Your task to perform on an android device: find which apps use the phone's location Image 0: 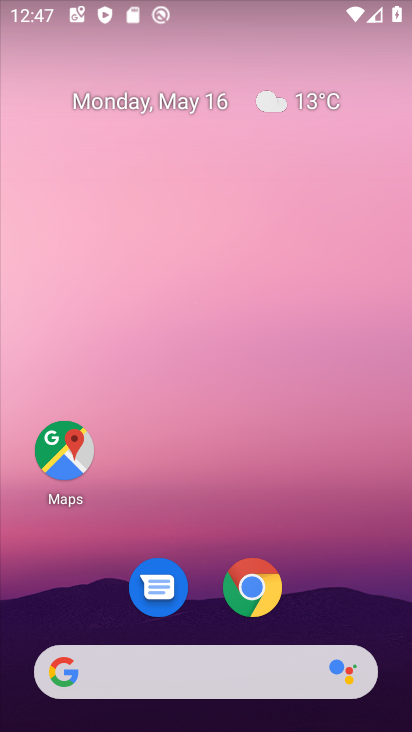
Step 0: drag from (225, 725) to (221, 239)
Your task to perform on an android device: find which apps use the phone's location Image 1: 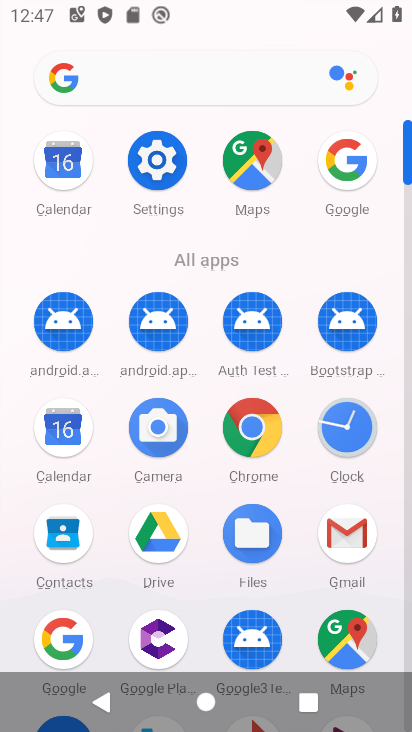
Step 1: click (157, 158)
Your task to perform on an android device: find which apps use the phone's location Image 2: 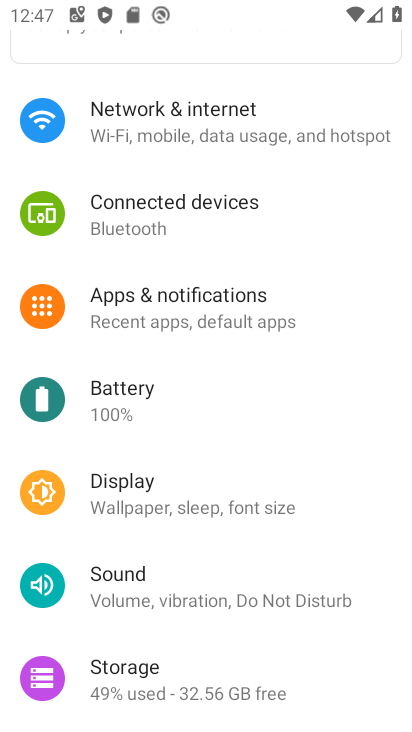
Step 2: drag from (164, 658) to (171, 277)
Your task to perform on an android device: find which apps use the phone's location Image 3: 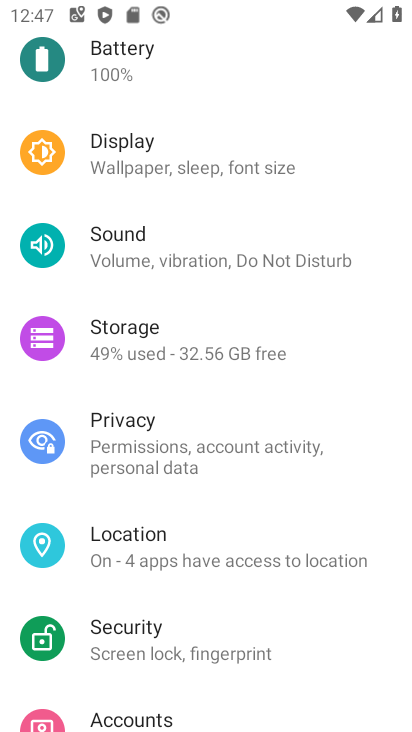
Step 3: click (150, 551)
Your task to perform on an android device: find which apps use the phone's location Image 4: 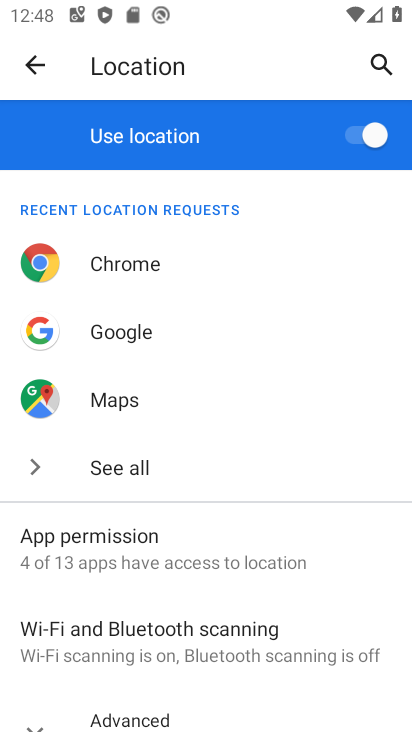
Step 4: drag from (197, 681) to (197, 406)
Your task to perform on an android device: find which apps use the phone's location Image 5: 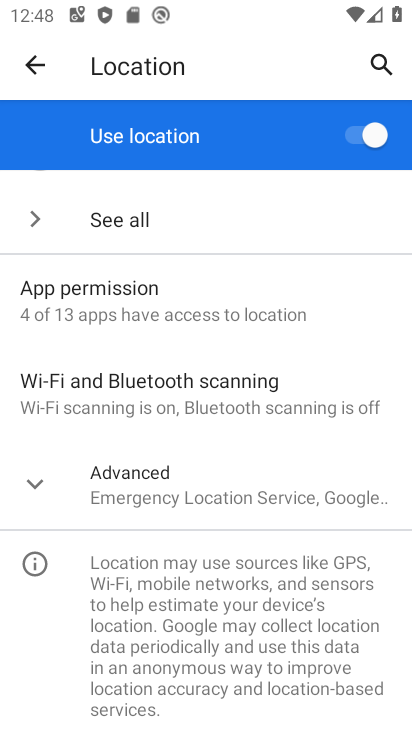
Step 5: click (118, 301)
Your task to perform on an android device: find which apps use the phone's location Image 6: 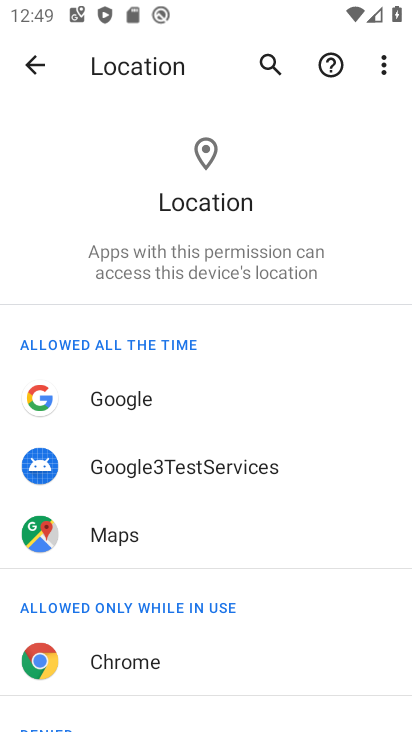
Step 6: task complete